Your task to perform on an android device: open device folders in google photos Image 0: 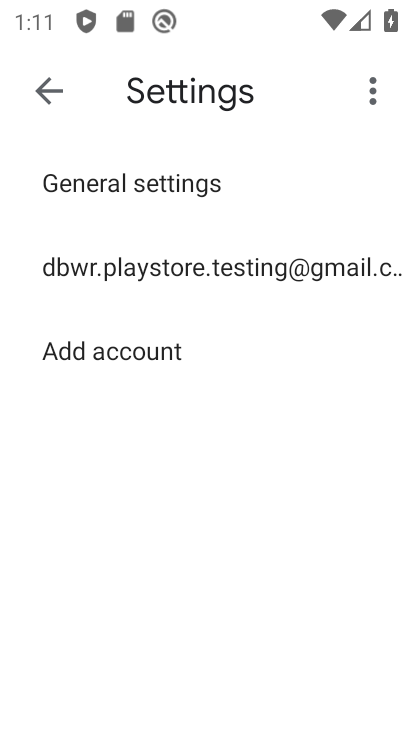
Step 0: drag from (337, 545) to (310, 331)
Your task to perform on an android device: open device folders in google photos Image 1: 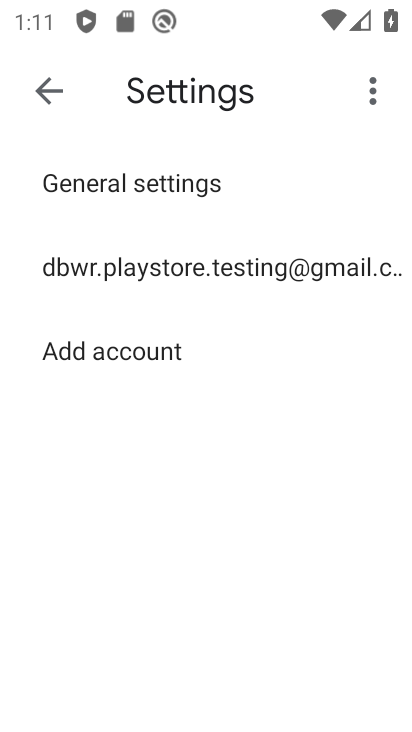
Step 1: press home button
Your task to perform on an android device: open device folders in google photos Image 2: 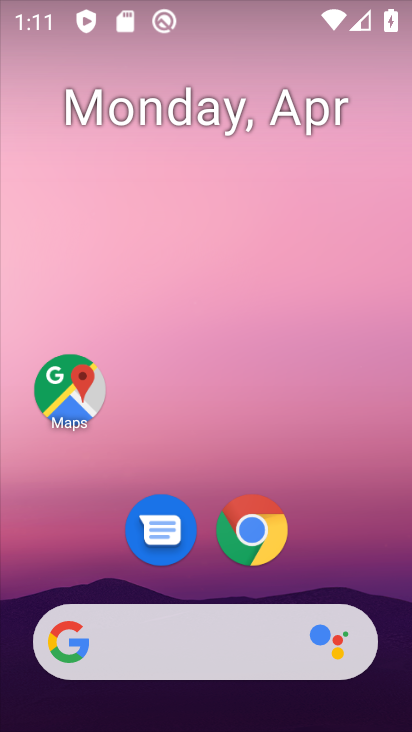
Step 2: drag from (331, 551) to (247, 59)
Your task to perform on an android device: open device folders in google photos Image 3: 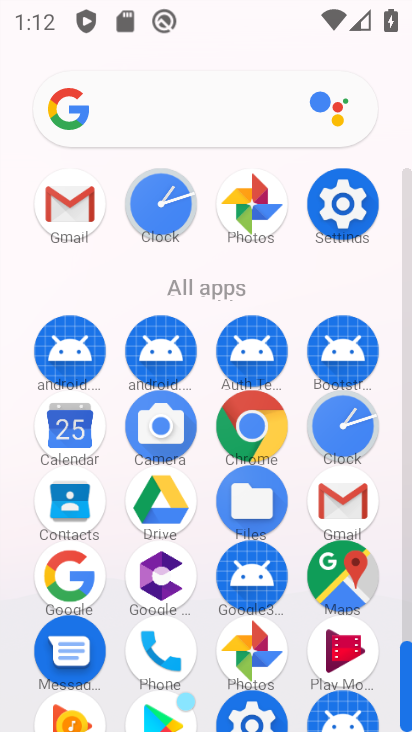
Step 3: click (251, 212)
Your task to perform on an android device: open device folders in google photos Image 4: 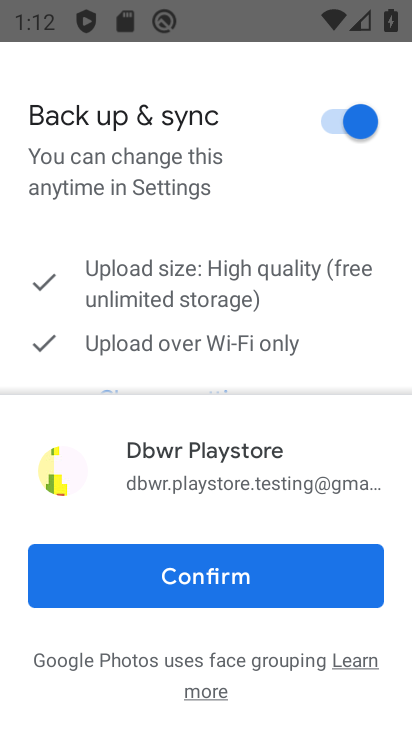
Step 4: click (220, 585)
Your task to perform on an android device: open device folders in google photos Image 5: 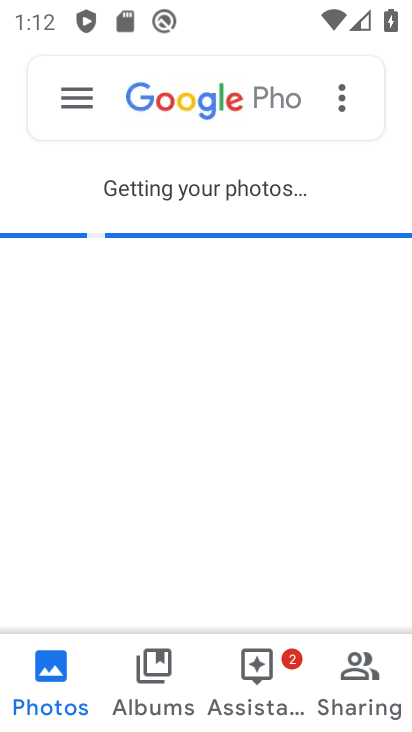
Step 5: click (55, 94)
Your task to perform on an android device: open device folders in google photos Image 6: 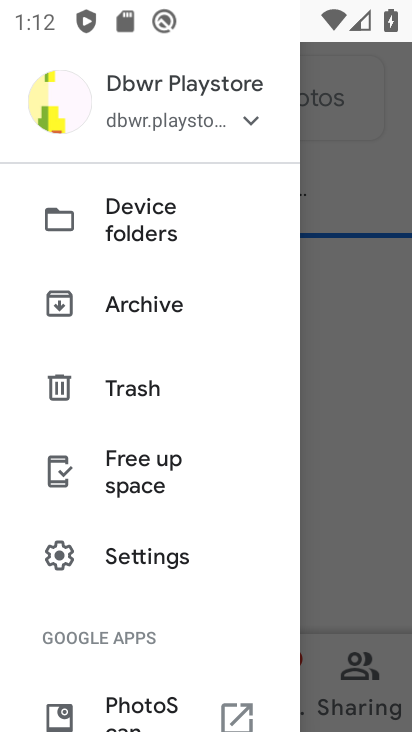
Step 6: click (153, 216)
Your task to perform on an android device: open device folders in google photos Image 7: 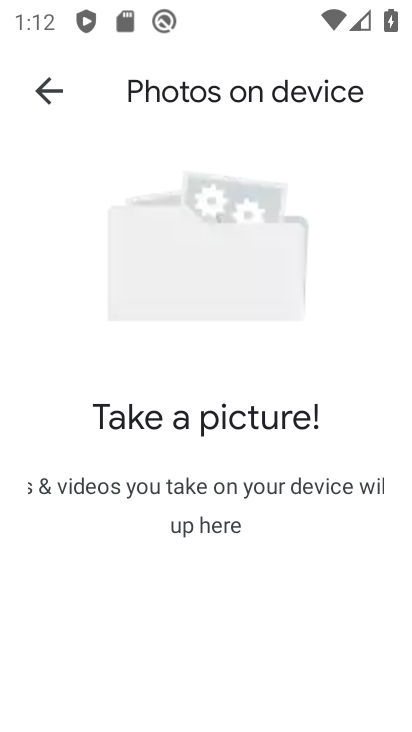
Step 7: task complete